Your task to perform on an android device: turn off improve location accuracy Image 0: 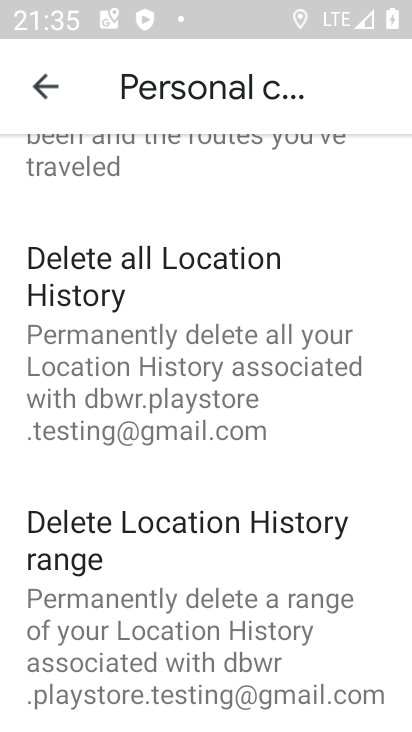
Step 0: press home button
Your task to perform on an android device: turn off improve location accuracy Image 1: 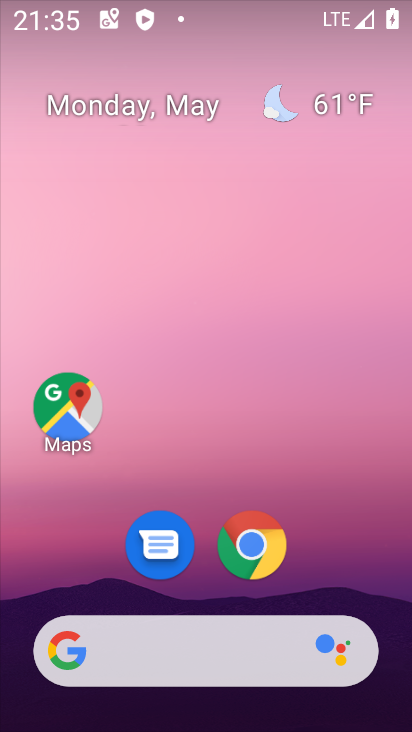
Step 1: drag from (125, 638) to (8, 230)
Your task to perform on an android device: turn off improve location accuracy Image 2: 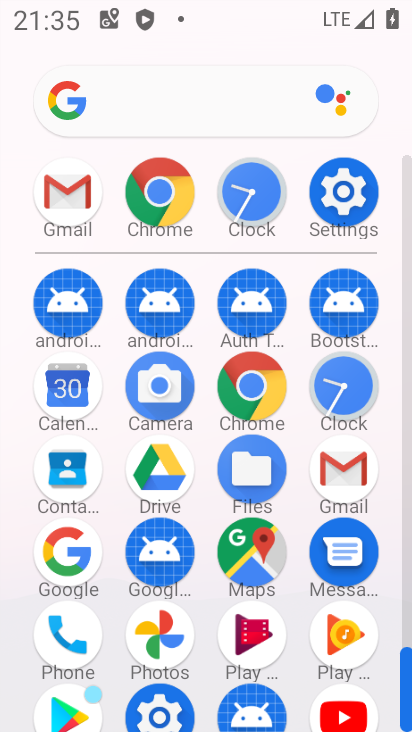
Step 2: click (337, 193)
Your task to perform on an android device: turn off improve location accuracy Image 3: 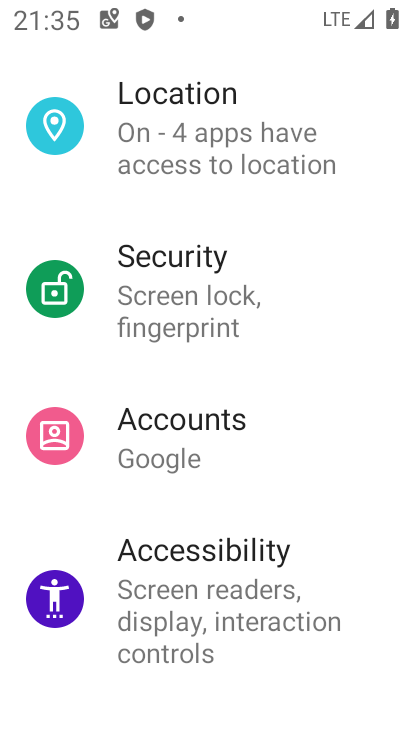
Step 3: click (171, 164)
Your task to perform on an android device: turn off improve location accuracy Image 4: 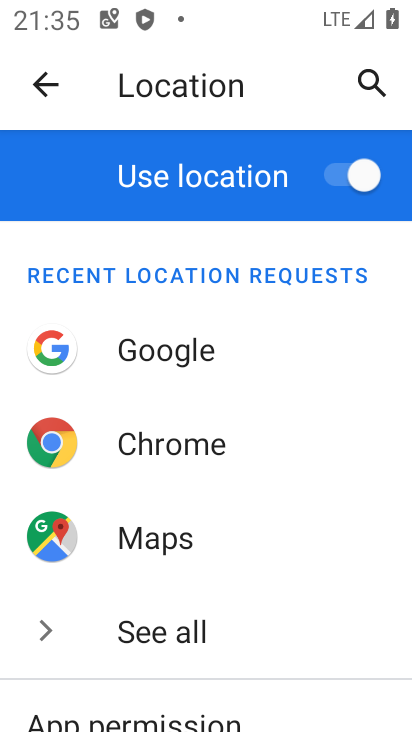
Step 4: drag from (151, 562) to (42, 6)
Your task to perform on an android device: turn off improve location accuracy Image 5: 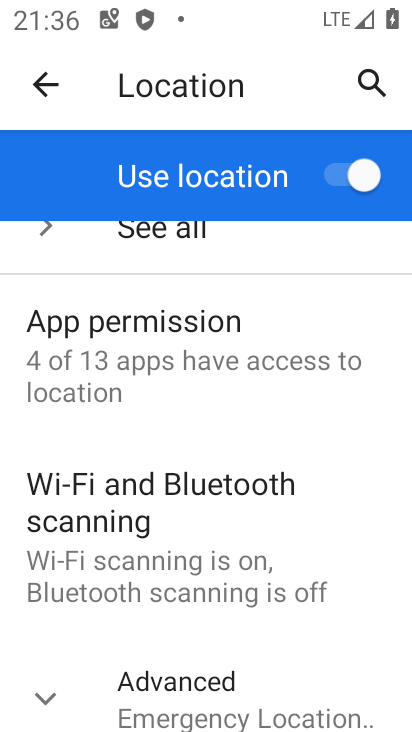
Step 5: click (131, 691)
Your task to perform on an android device: turn off improve location accuracy Image 6: 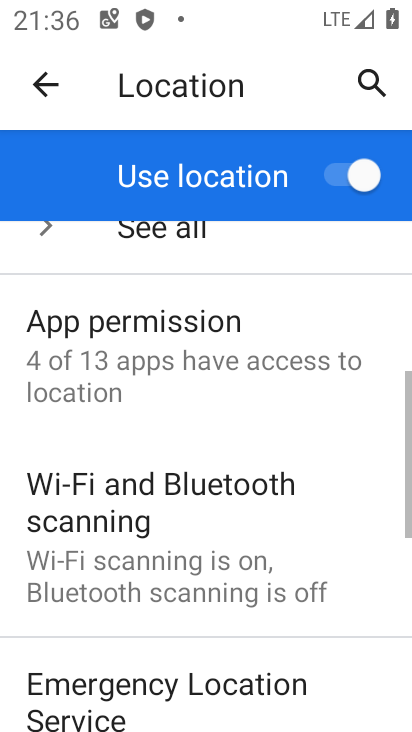
Step 6: drag from (194, 662) to (111, 14)
Your task to perform on an android device: turn off improve location accuracy Image 7: 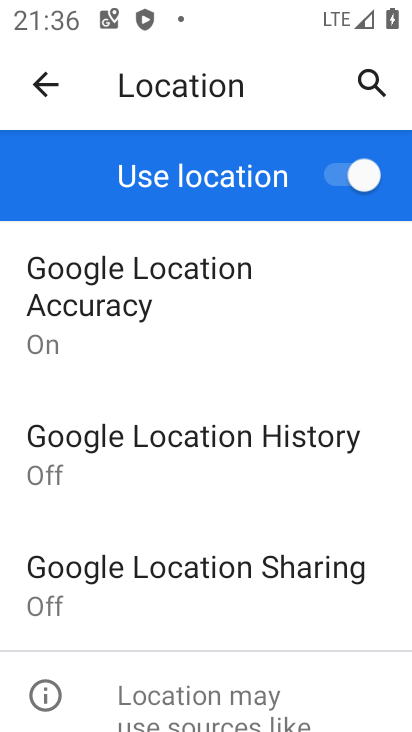
Step 7: click (193, 308)
Your task to perform on an android device: turn off improve location accuracy Image 8: 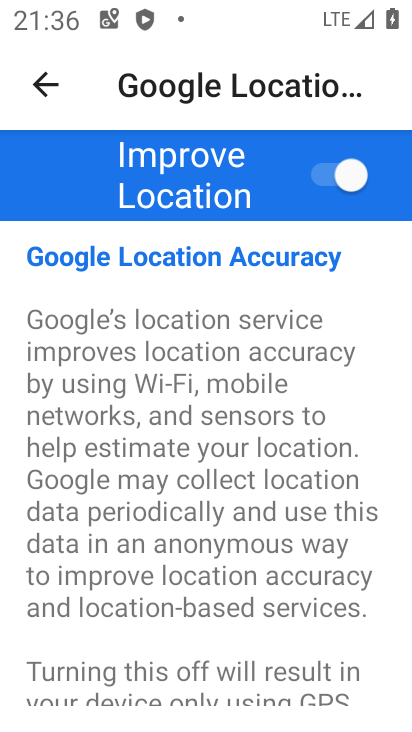
Step 8: click (326, 194)
Your task to perform on an android device: turn off improve location accuracy Image 9: 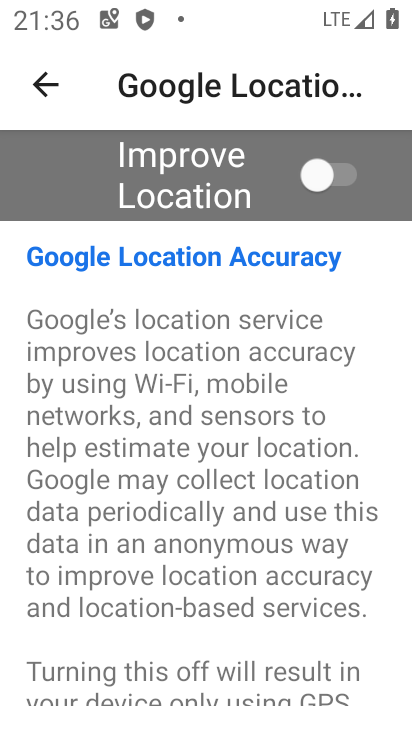
Step 9: task complete